Your task to perform on an android device: star an email in the gmail app Image 0: 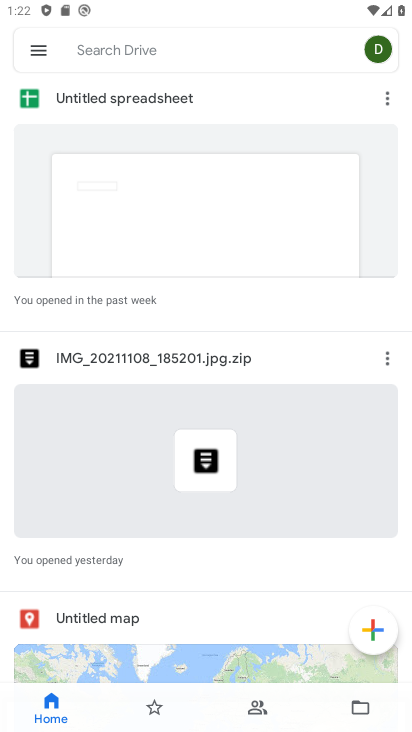
Step 0: press back button
Your task to perform on an android device: star an email in the gmail app Image 1: 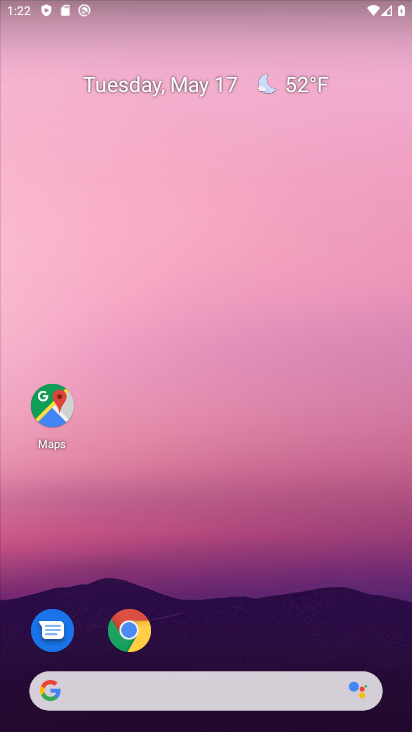
Step 1: drag from (210, 622) to (329, 22)
Your task to perform on an android device: star an email in the gmail app Image 2: 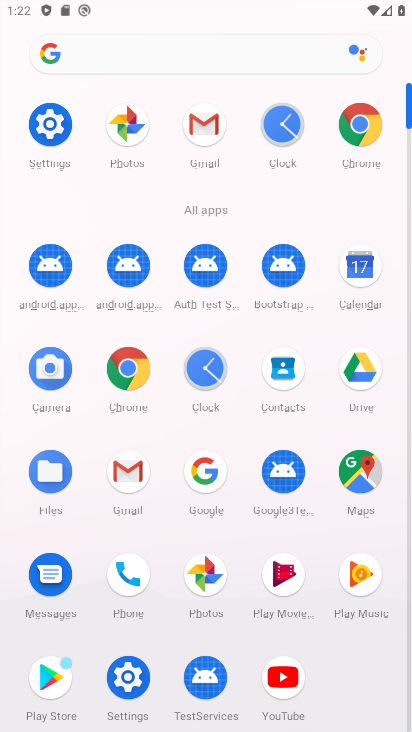
Step 2: click (201, 110)
Your task to perform on an android device: star an email in the gmail app Image 3: 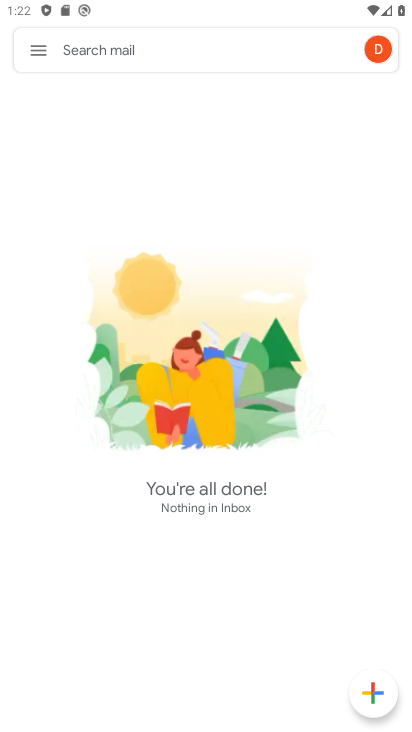
Step 3: click (23, 58)
Your task to perform on an android device: star an email in the gmail app Image 4: 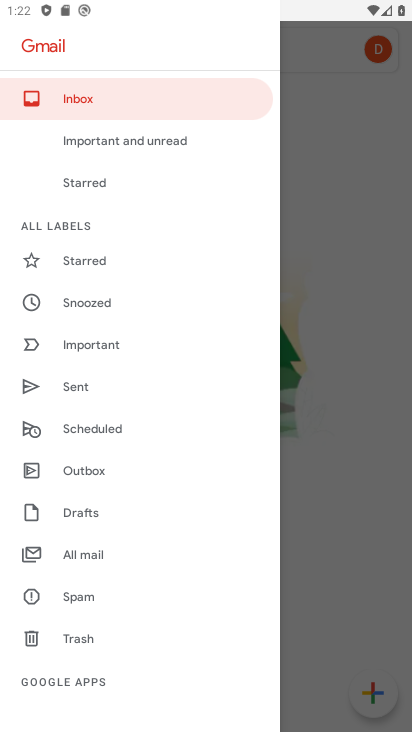
Step 4: click (97, 554)
Your task to perform on an android device: star an email in the gmail app Image 5: 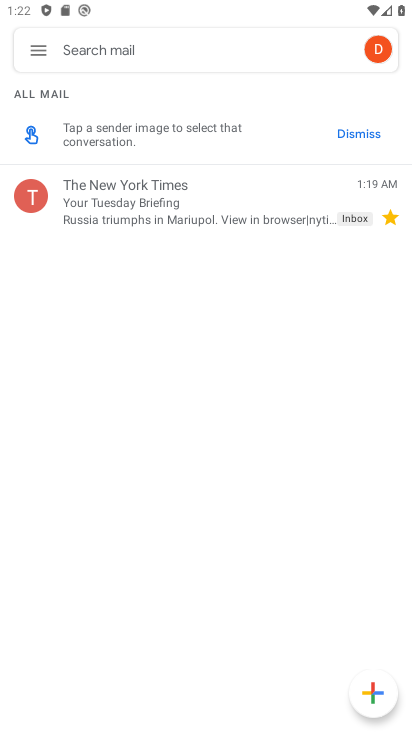
Step 5: click (394, 215)
Your task to perform on an android device: star an email in the gmail app Image 6: 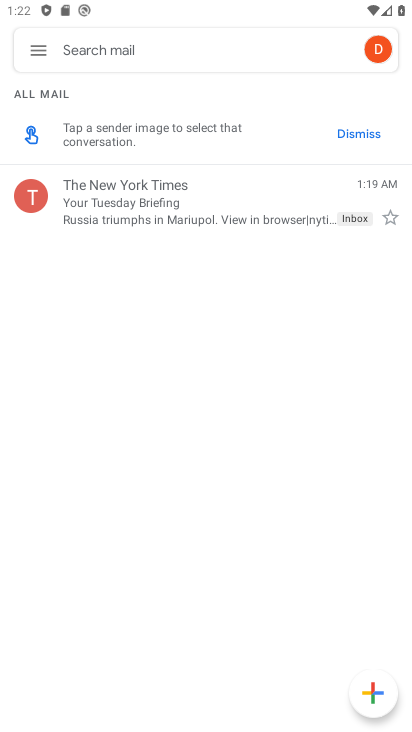
Step 6: click (394, 215)
Your task to perform on an android device: star an email in the gmail app Image 7: 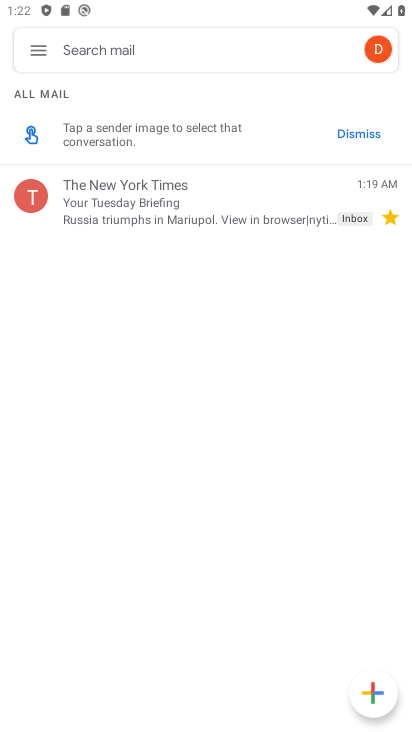
Step 7: task complete